Your task to perform on an android device: all mails in gmail Image 0: 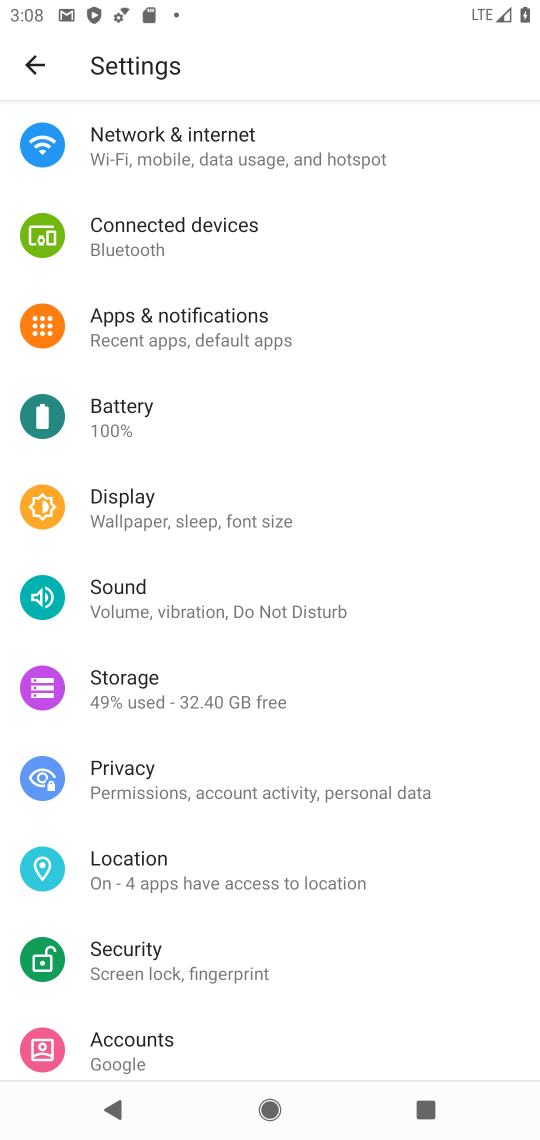
Step 0: press home button
Your task to perform on an android device: all mails in gmail Image 1: 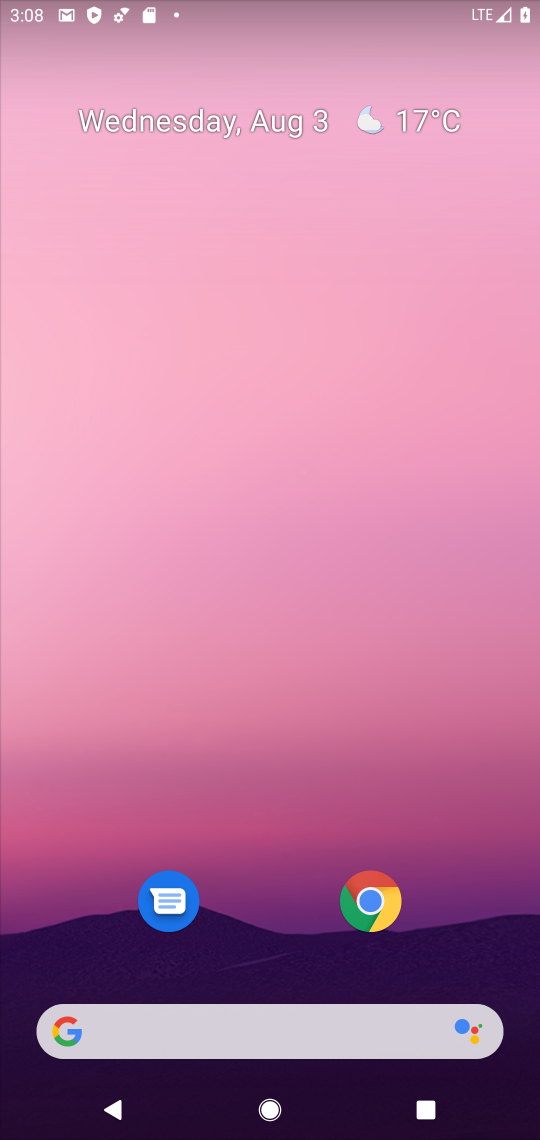
Step 1: drag from (205, 1064) to (320, 282)
Your task to perform on an android device: all mails in gmail Image 2: 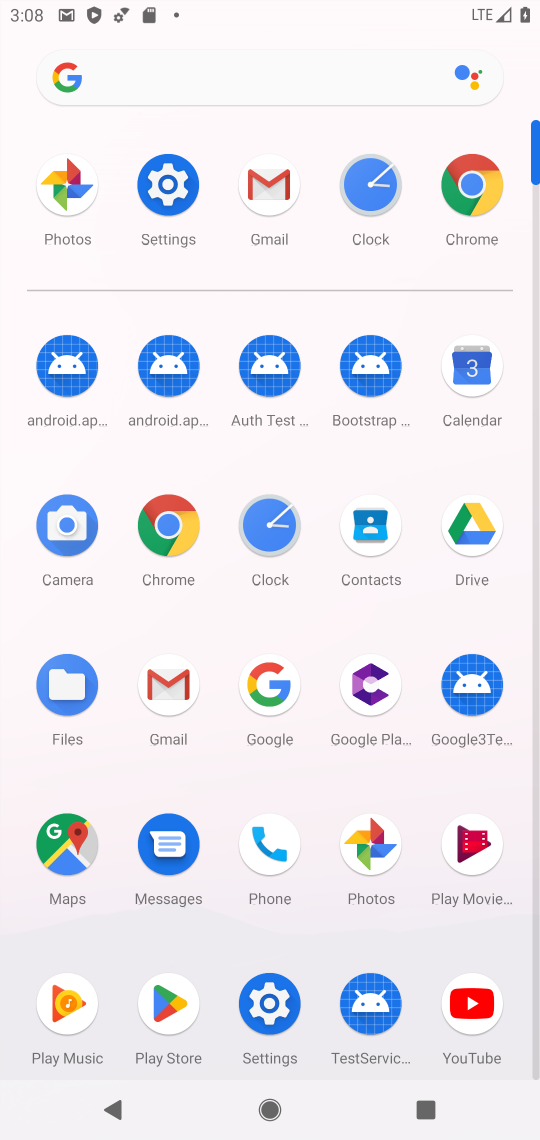
Step 2: click (272, 181)
Your task to perform on an android device: all mails in gmail Image 3: 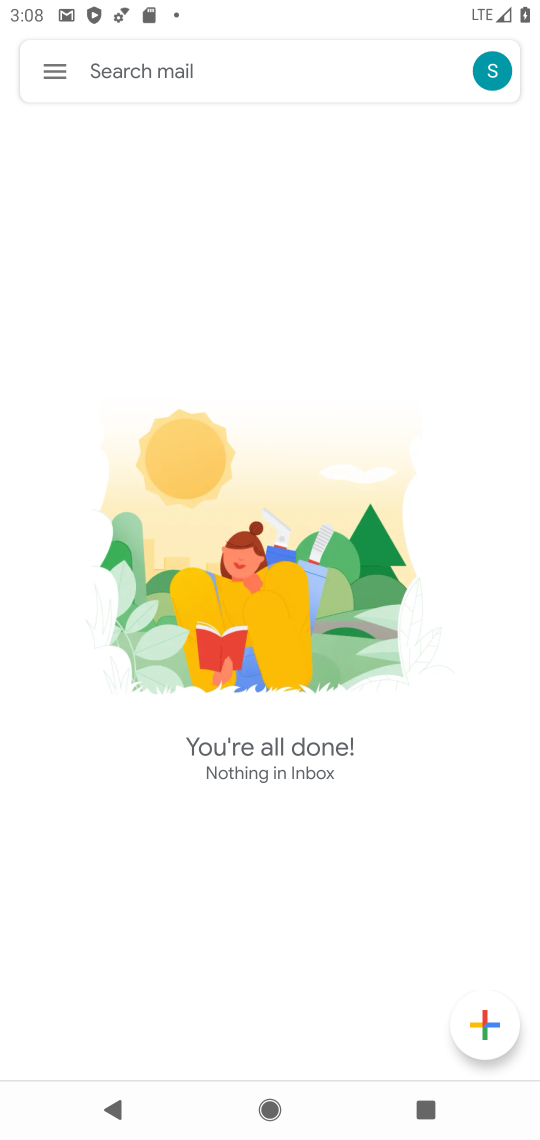
Step 3: click (62, 65)
Your task to perform on an android device: all mails in gmail Image 4: 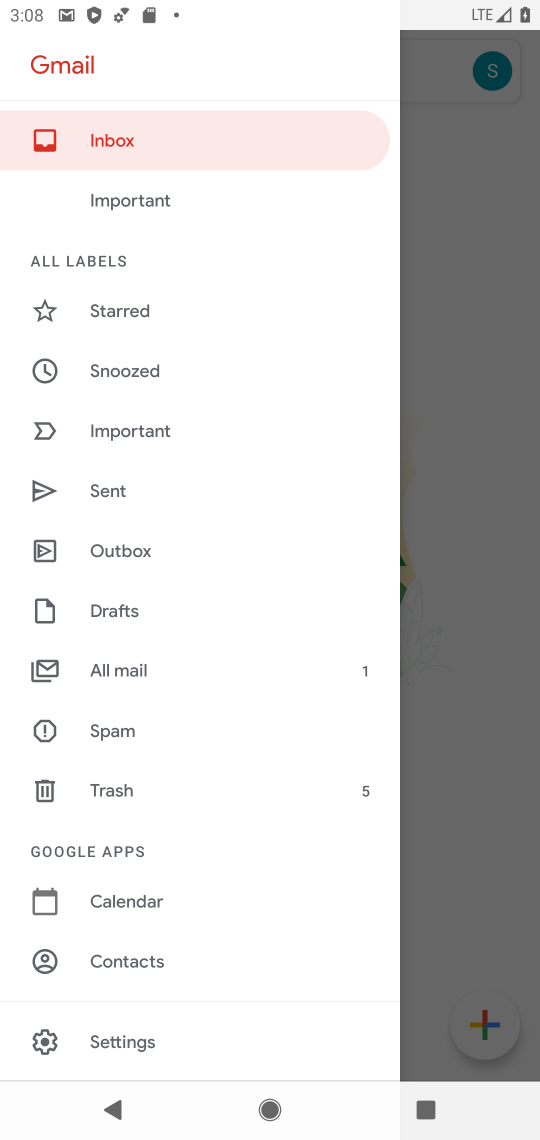
Step 4: click (112, 647)
Your task to perform on an android device: all mails in gmail Image 5: 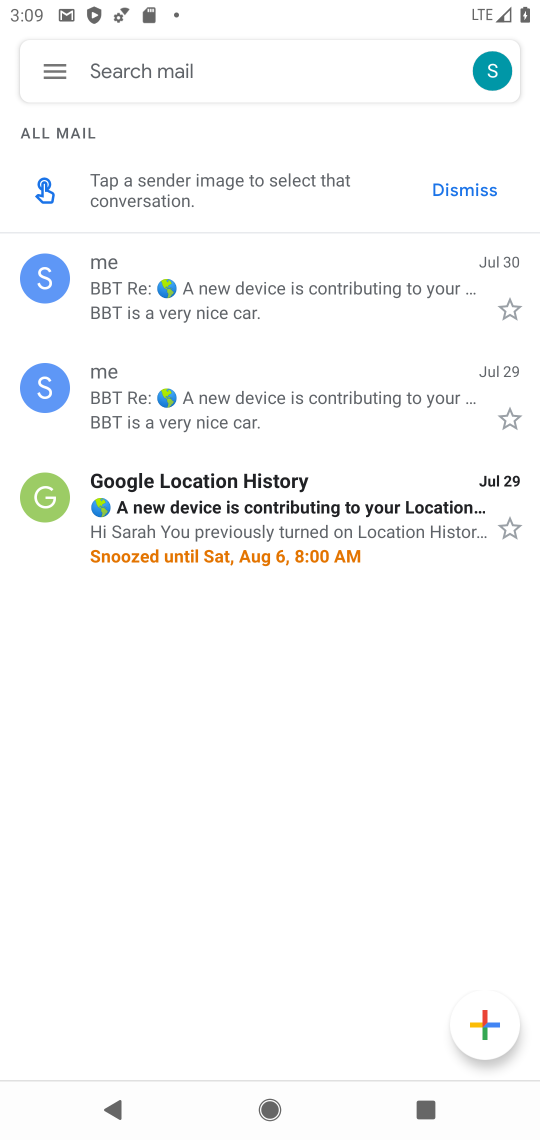
Step 5: task complete